Your task to perform on an android device: turn off wifi Image 0: 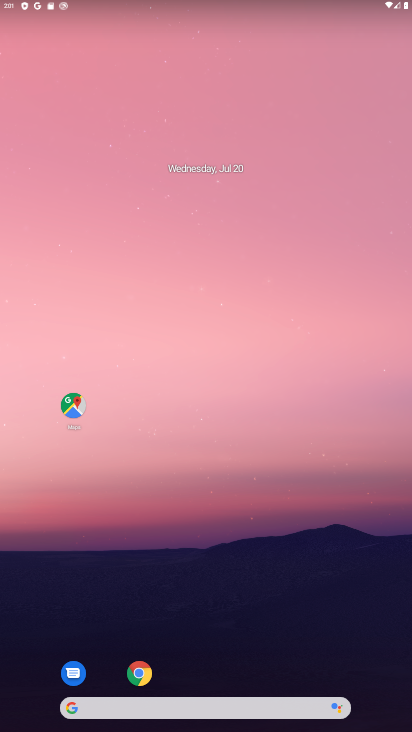
Step 0: drag from (176, 686) to (289, 16)
Your task to perform on an android device: turn off wifi Image 1: 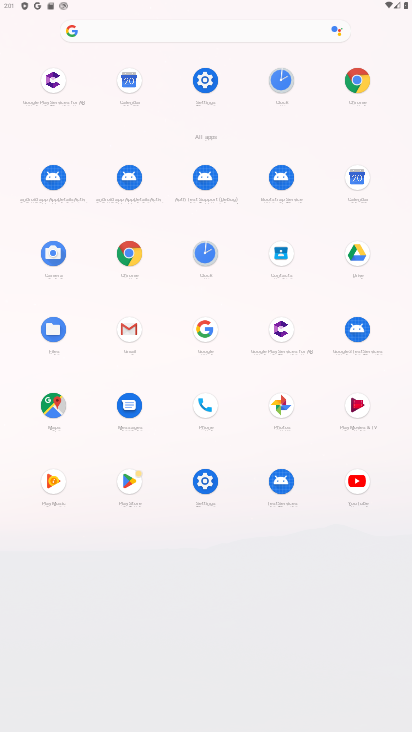
Step 1: click (162, 33)
Your task to perform on an android device: turn off wifi Image 2: 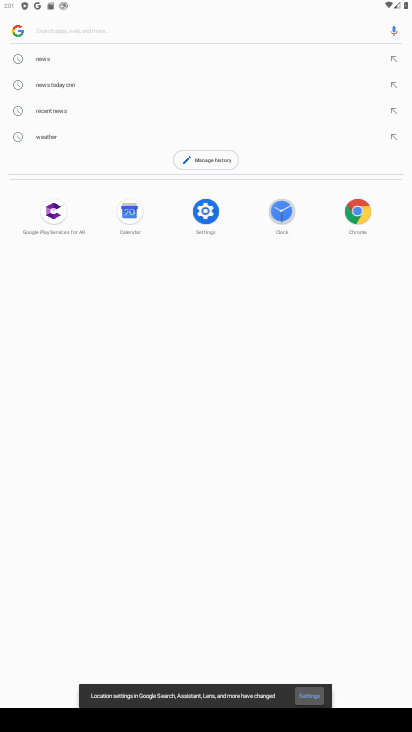
Step 2: press home button
Your task to perform on an android device: turn off wifi Image 3: 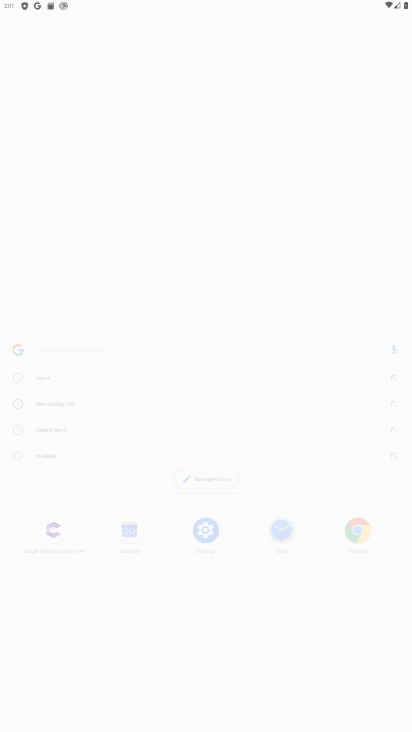
Step 3: drag from (121, 578) to (259, 138)
Your task to perform on an android device: turn off wifi Image 4: 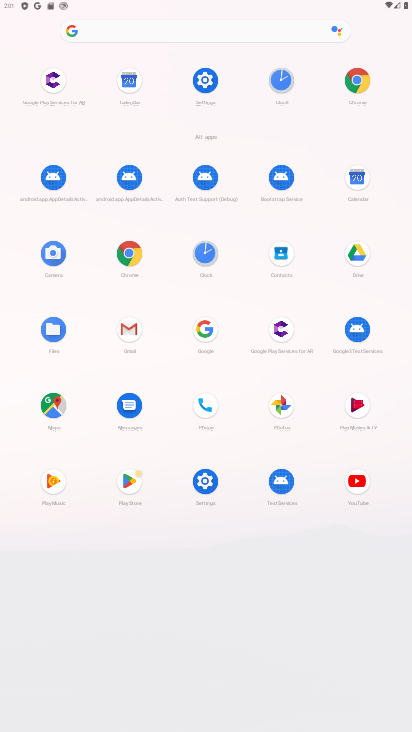
Step 4: click (196, 483)
Your task to perform on an android device: turn off wifi Image 5: 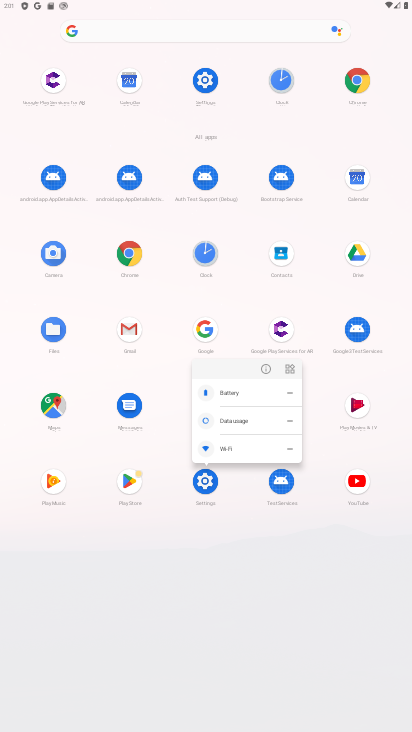
Step 5: click (261, 369)
Your task to perform on an android device: turn off wifi Image 6: 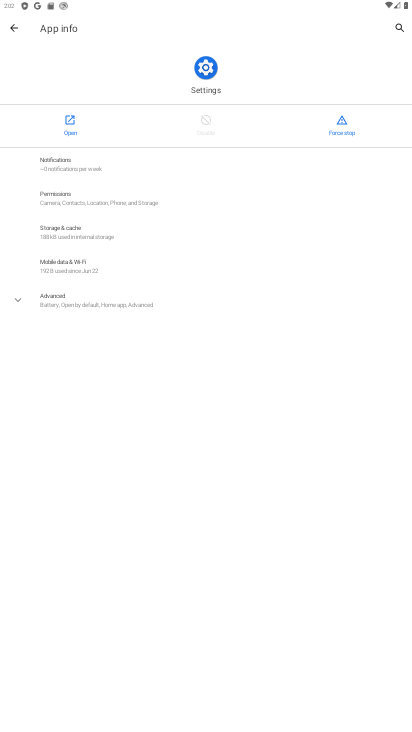
Step 6: click (58, 114)
Your task to perform on an android device: turn off wifi Image 7: 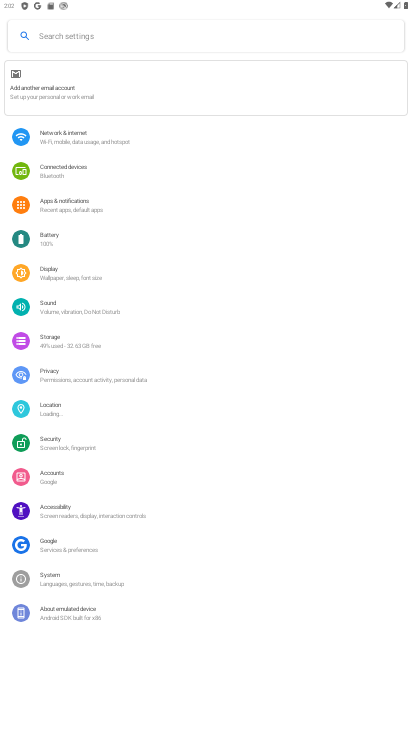
Step 7: click (72, 141)
Your task to perform on an android device: turn off wifi Image 8: 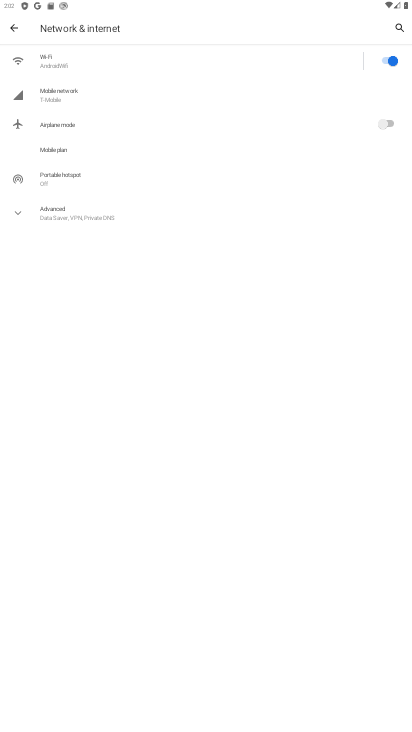
Step 8: click (379, 63)
Your task to perform on an android device: turn off wifi Image 9: 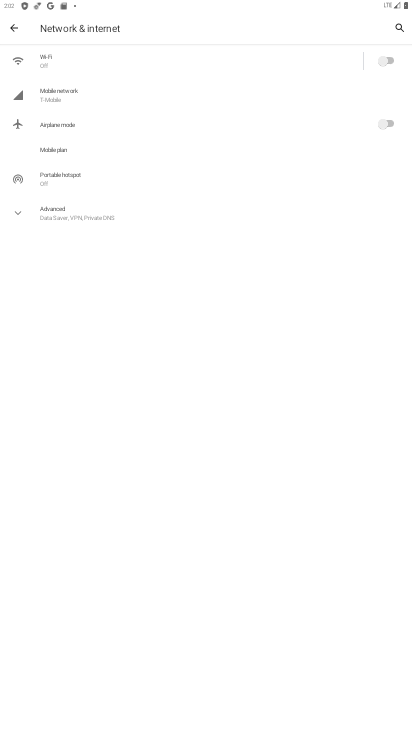
Step 9: task complete